Your task to perform on an android device: set the stopwatch Image 0: 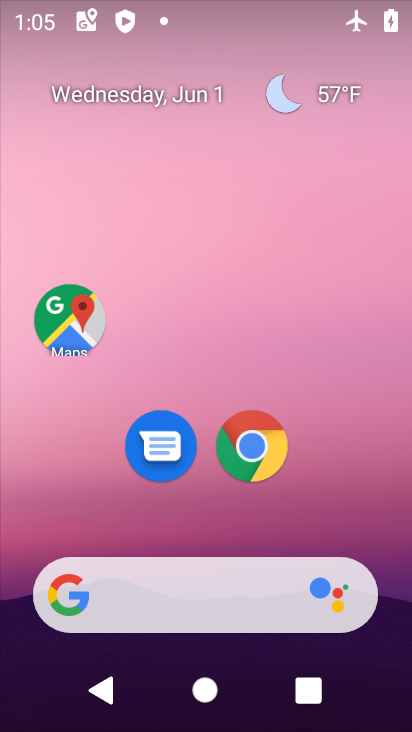
Step 0: click (279, 19)
Your task to perform on an android device: set the stopwatch Image 1: 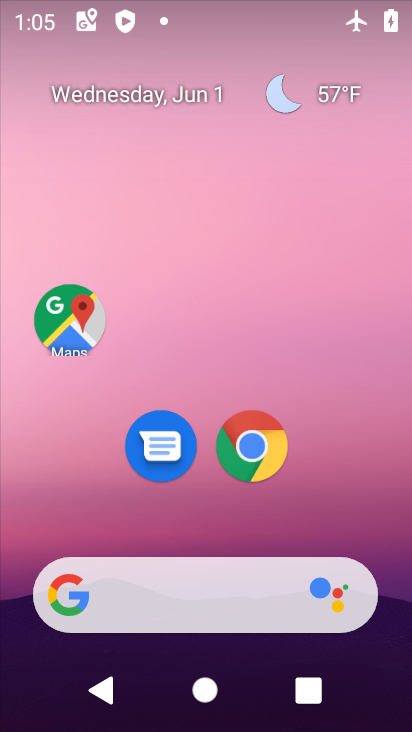
Step 1: drag from (196, 501) to (153, 121)
Your task to perform on an android device: set the stopwatch Image 2: 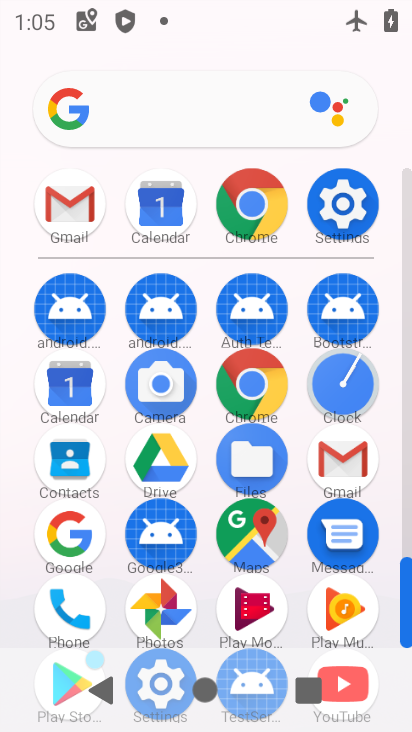
Step 2: click (320, 390)
Your task to perform on an android device: set the stopwatch Image 3: 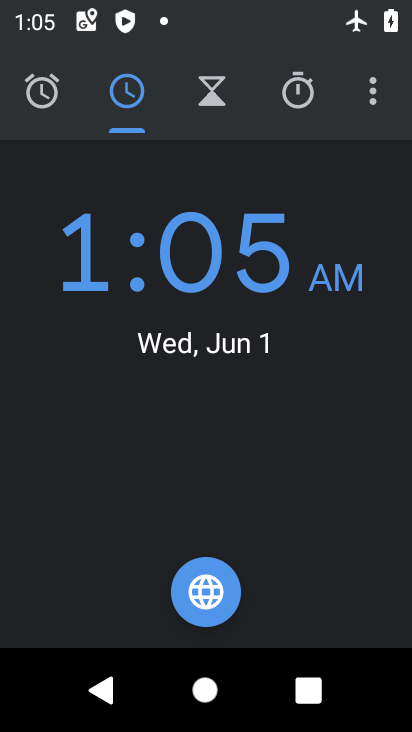
Step 3: click (291, 110)
Your task to perform on an android device: set the stopwatch Image 4: 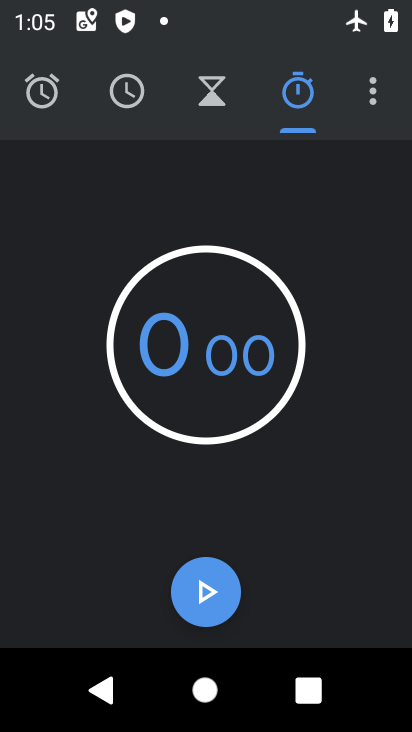
Step 4: click (212, 607)
Your task to perform on an android device: set the stopwatch Image 5: 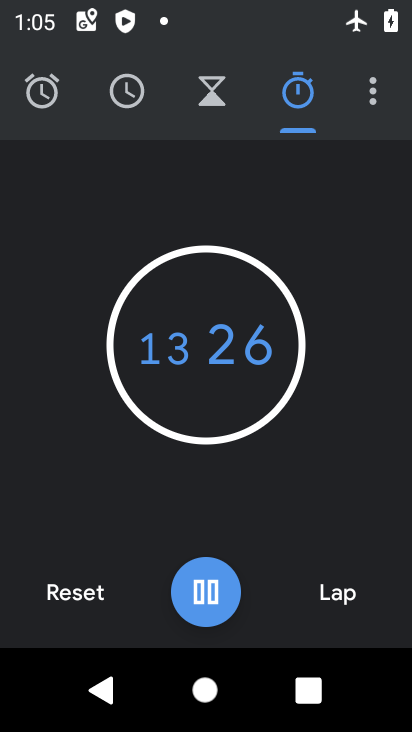
Step 5: task complete